Your task to perform on an android device: Open Google Chrome and click the shortcut for Amazon.com Image 0: 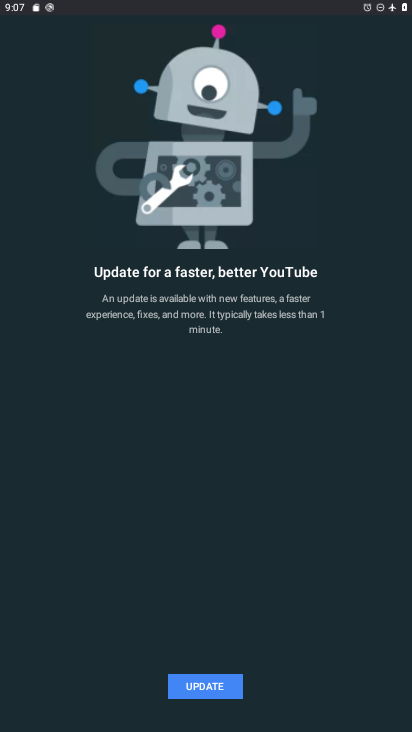
Step 0: press home button
Your task to perform on an android device: Open Google Chrome and click the shortcut for Amazon.com Image 1: 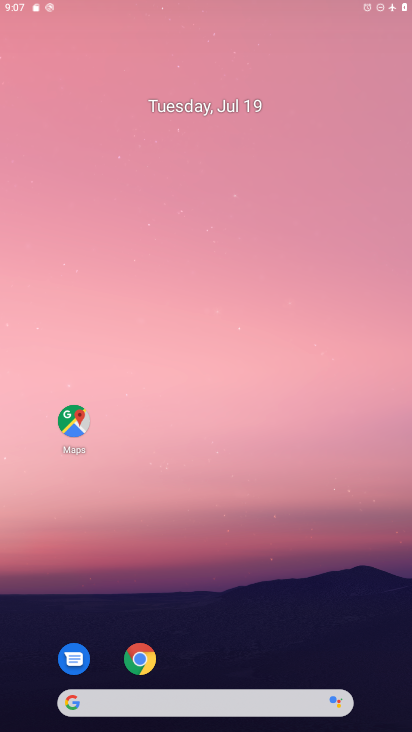
Step 1: drag from (301, 588) to (305, 178)
Your task to perform on an android device: Open Google Chrome and click the shortcut for Amazon.com Image 2: 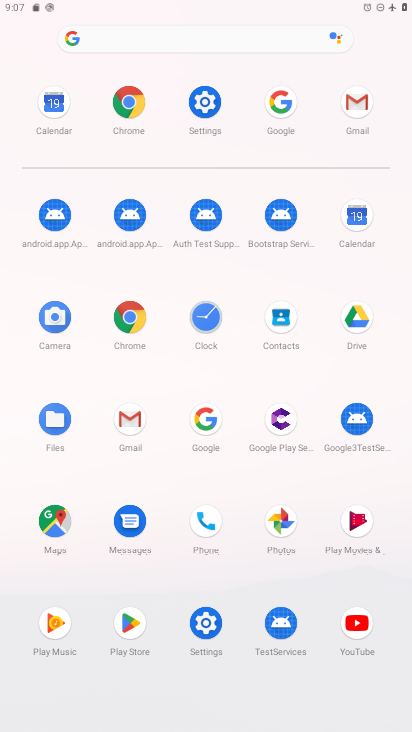
Step 2: click (136, 100)
Your task to perform on an android device: Open Google Chrome and click the shortcut for Amazon.com Image 3: 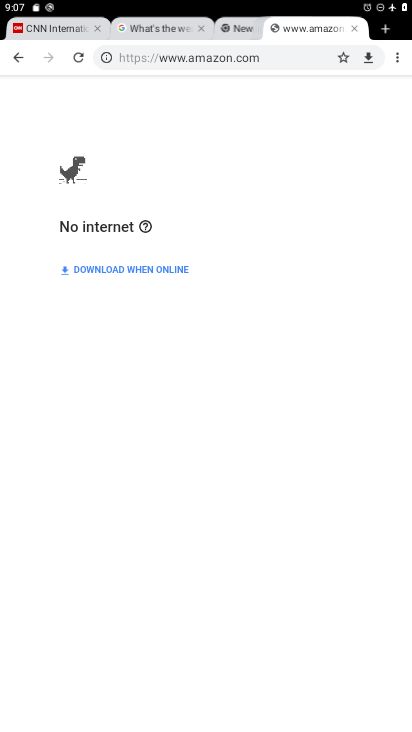
Step 3: click (355, 30)
Your task to perform on an android device: Open Google Chrome and click the shortcut for Amazon.com Image 4: 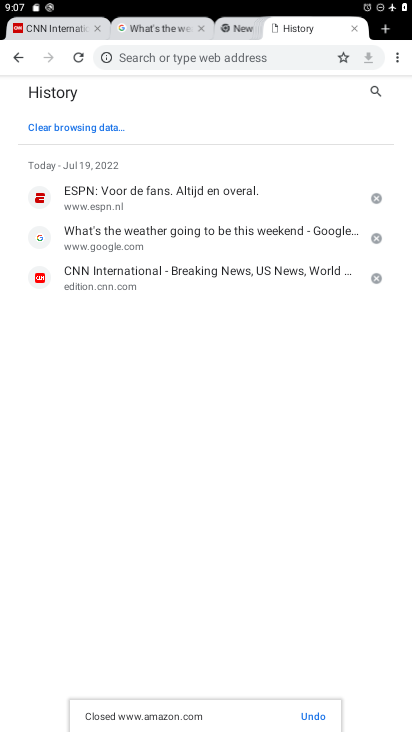
Step 4: click (359, 26)
Your task to perform on an android device: Open Google Chrome and click the shortcut for Amazon.com Image 5: 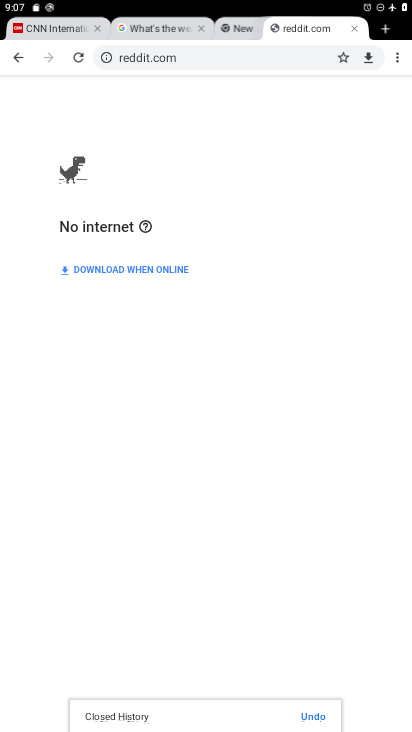
Step 5: click (351, 26)
Your task to perform on an android device: Open Google Chrome and click the shortcut for Amazon.com Image 6: 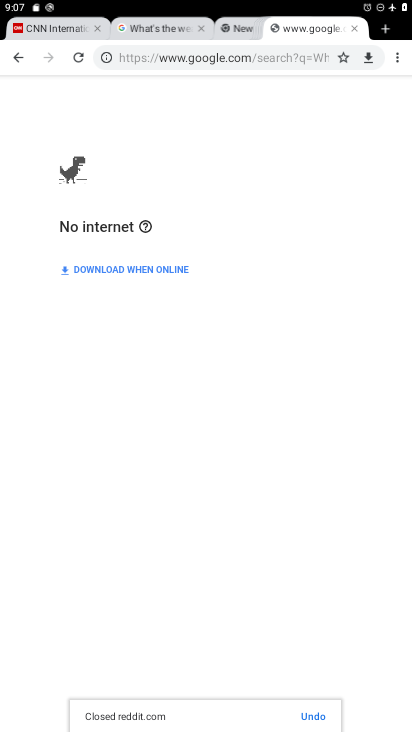
Step 6: click (351, 26)
Your task to perform on an android device: Open Google Chrome and click the shortcut for Amazon.com Image 7: 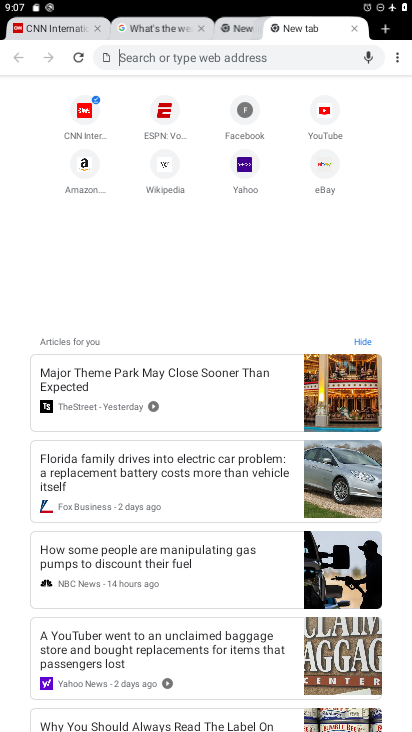
Step 7: click (90, 166)
Your task to perform on an android device: Open Google Chrome and click the shortcut for Amazon.com Image 8: 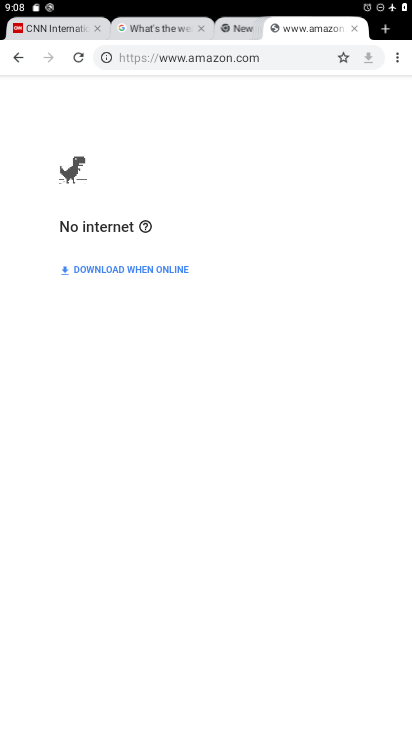
Step 8: click (298, 24)
Your task to perform on an android device: Open Google Chrome and click the shortcut for Amazon.com Image 9: 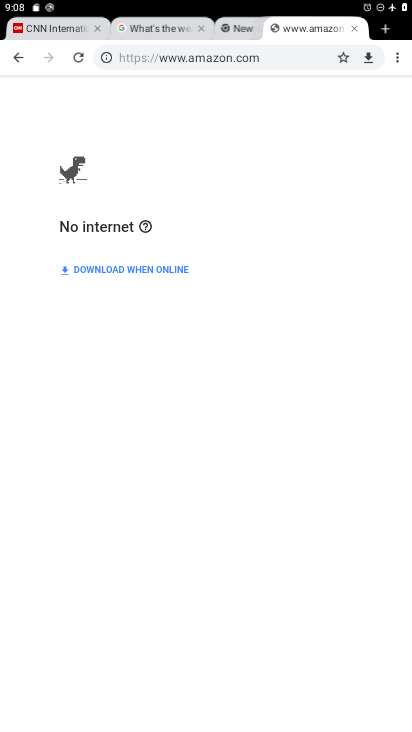
Step 9: task complete